Your task to perform on an android device: choose inbox layout in the gmail app Image 0: 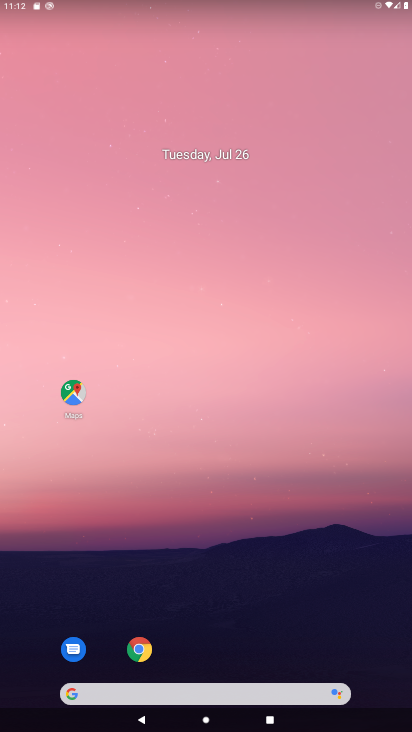
Step 0: drag from (160, 588) to (181, 275)
Your task to perform on an android device: choose inbox layout in the gmail app Image 1: 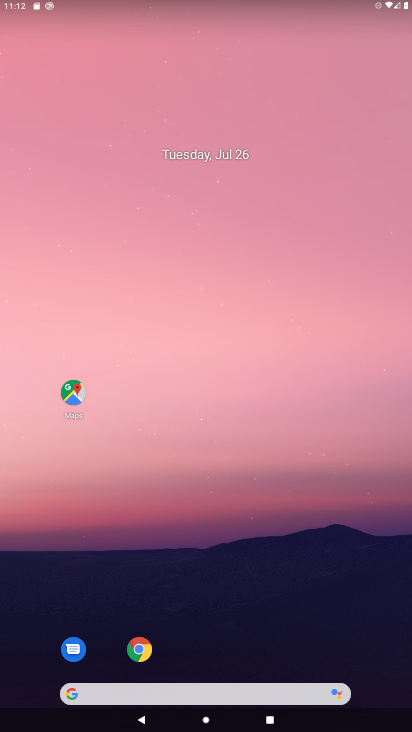
Step 1: drag from (239, 682) to (244, 262)
Your task to perform on an android device: choose inbox layout in the gmail app Image 2: 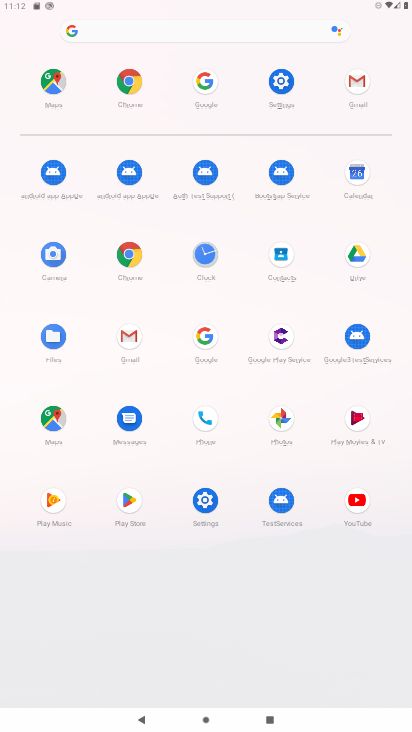
Step 2: click (126, 336)
Your task to perform on an android device: choose inbox layout in the gmail app Image 3: 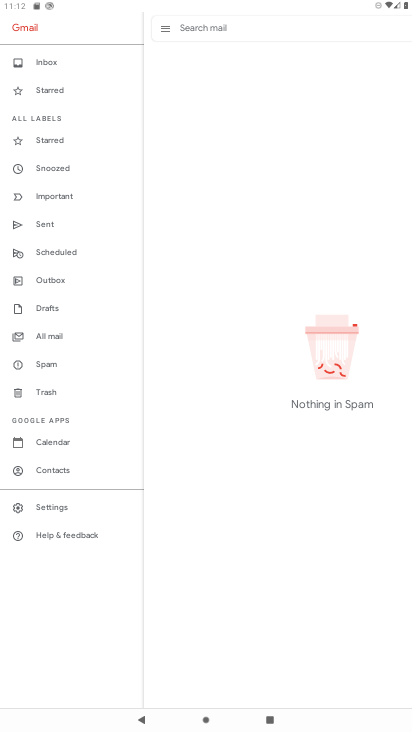
Step 3: click (61, 502)
Your task to perform on an android device: choose inbox layout in the gmail app Image 4: 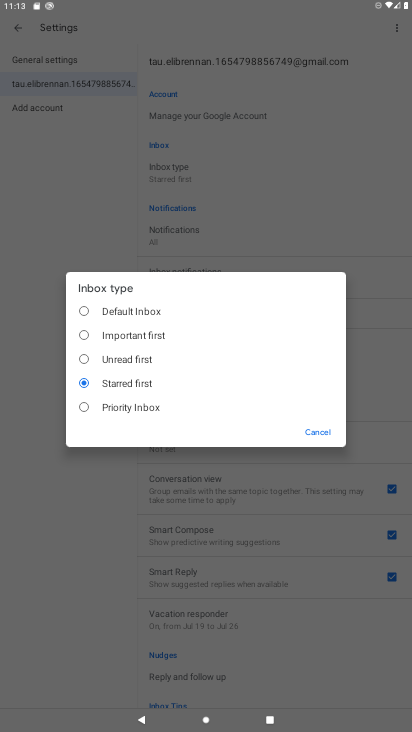
Step 4: click (306, 424)
Your task to perform on an android device: choose inbox layout in the gmail app Image 5: 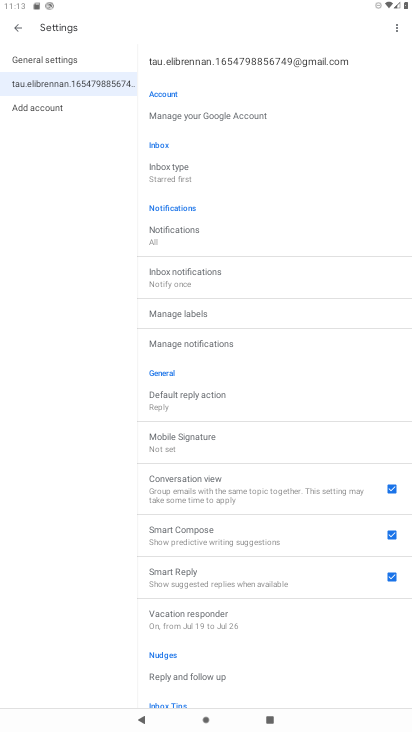
Step 5: click (177, 180)
Your task to perform on an android device: choose inbox layout in the gmail app Image 6: 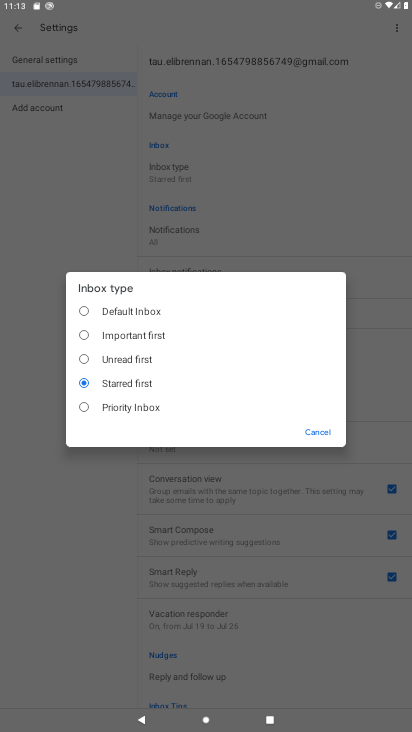
Step 6: click (157, 329)
Your task to perform on an android device: choose inbox layout in the gmail app Image 7: 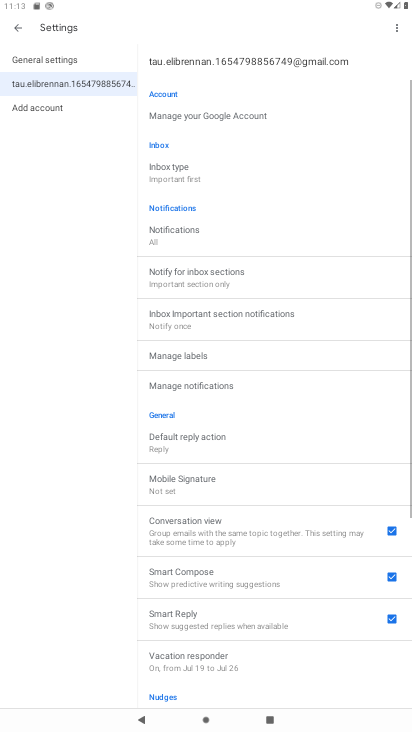
Step 7: task complete